Your task to perform on an android device: Open network settings Image 0: 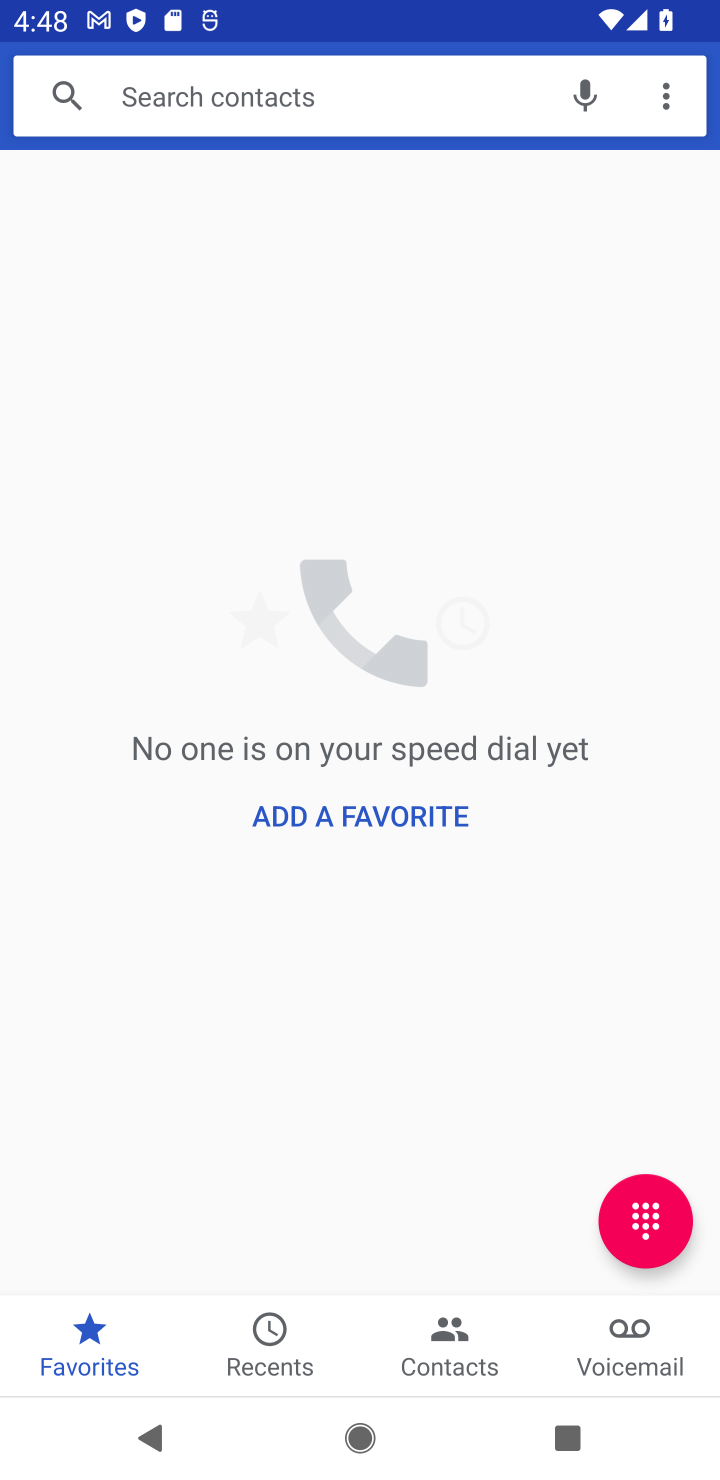
Step 0: task complete